Your task to perform on an android device: Is it going to rain tomorrow? Image 0: 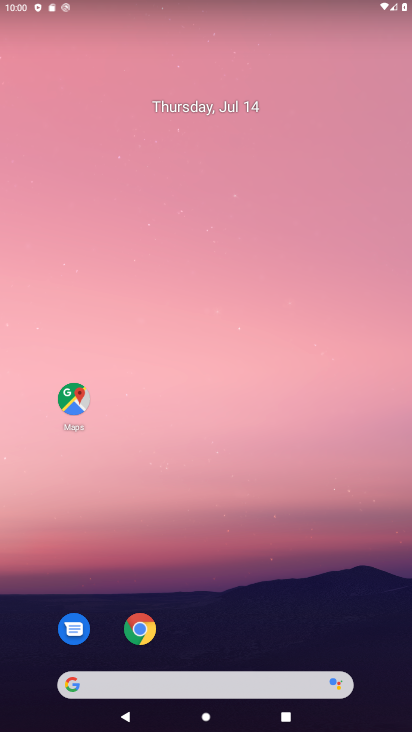
Step 0: drag from (10, 275) to (322, 270)
Your task to perform on an android device: Is it going to rain tomorrow? Image 1: 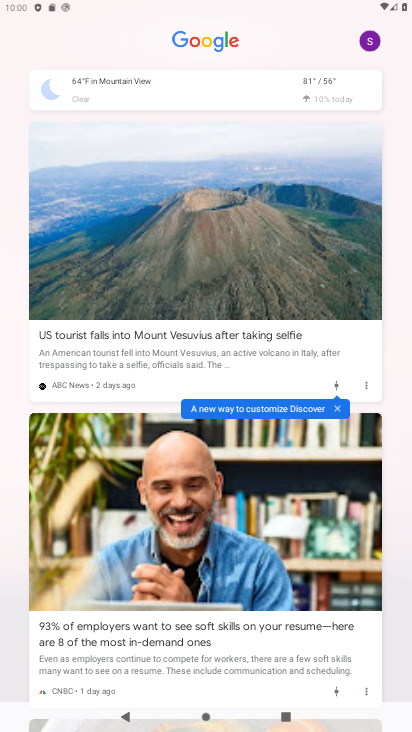
Step 1: click (281, 96)
Your task to perform on an android device: Is it going to rain tomorrow? Image 2: 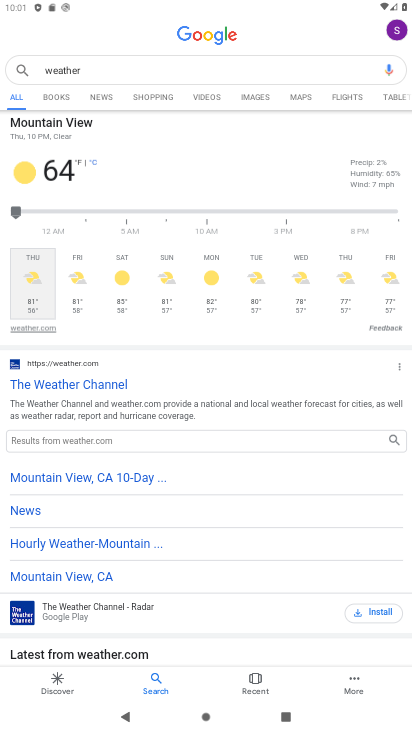
Step 2: task complete